Your task to perform on an android device: Check the weather Image 0: 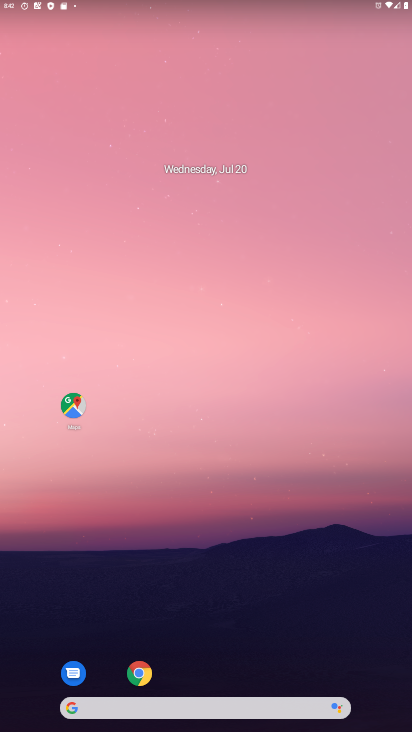
Step 0: drag from (231, 671) to (214, 142)
Your task to perform on an android device: Check the weather Image 1: 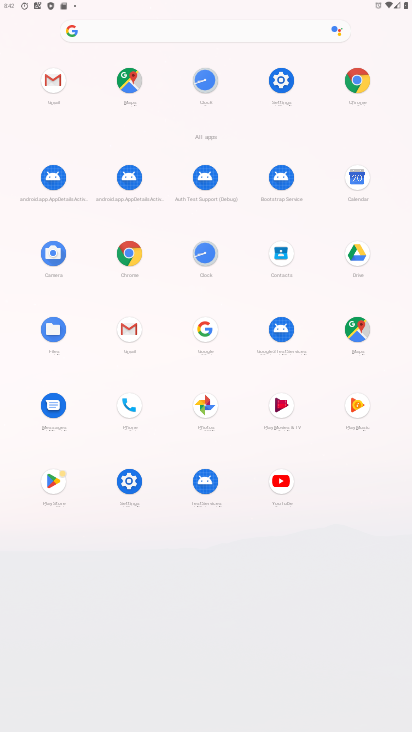
Step 1: click (209, 327)
Your task to perform on an android device: Check the weather Image 2: 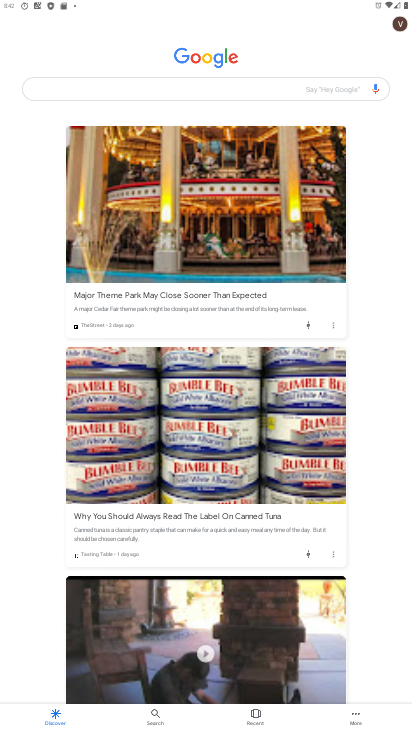
Step 2: click (161, 93)
Your task to perform on an android device: Check the weather Image 3: 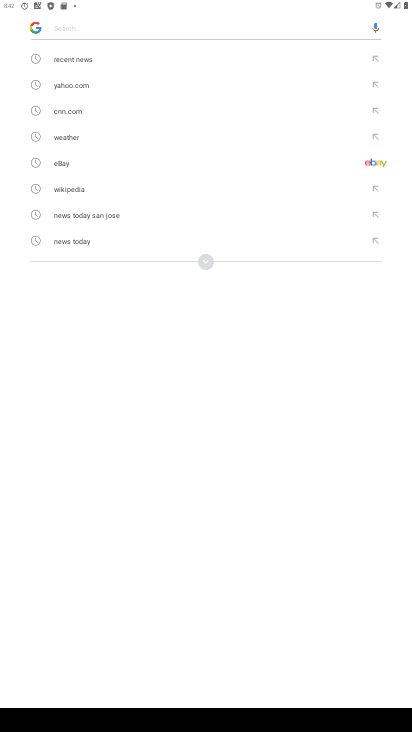
Step 3: type "check the weather"
Your task to perform on an android device: Check the weather Image 4: 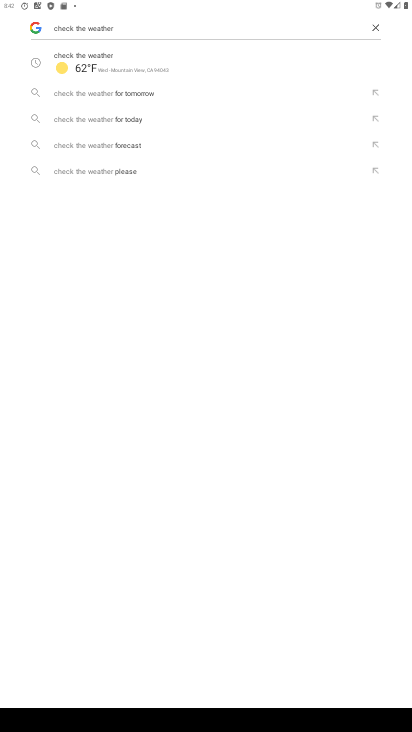
Step 4: click (111, 61)
Your task to perform on an android device: Check the weather Image 5: 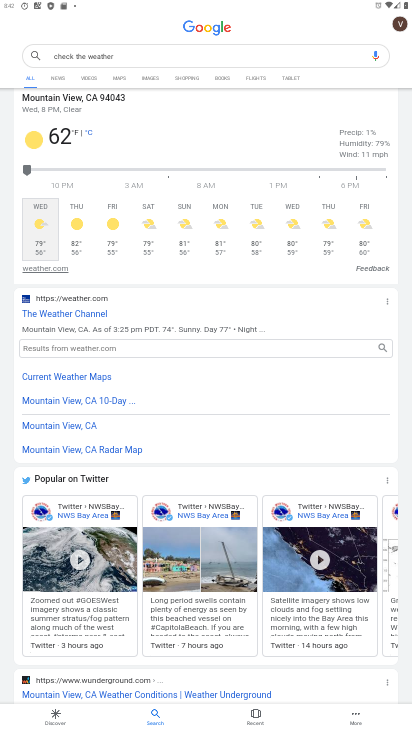
Step 5: task complete